Your task to perform on an android device: turn on improve location accuracy Image 0: 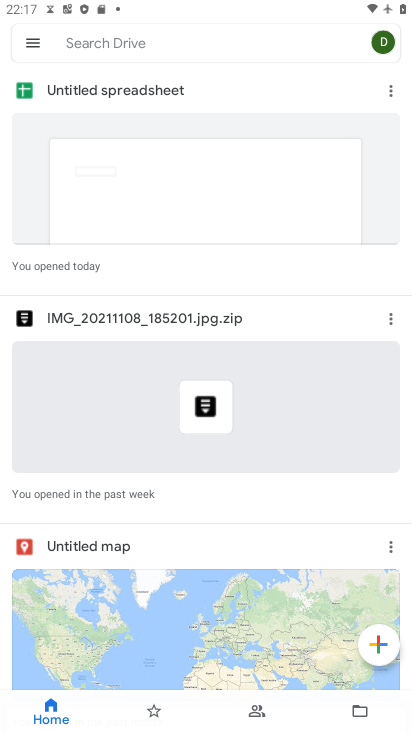
Step 0: press home button
Your task to perform on an android device: turn on improve location accuracy Image 1: 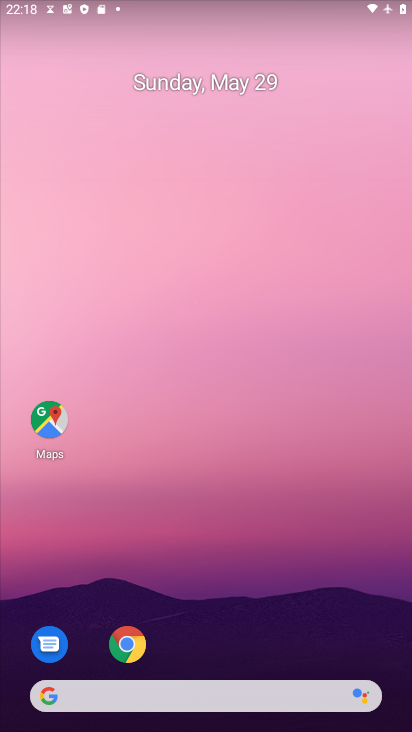
Step 1: drag from (280, 549) to (309, 10)
Your task to perform on an android device: turn on improve location accuracy Image 2: 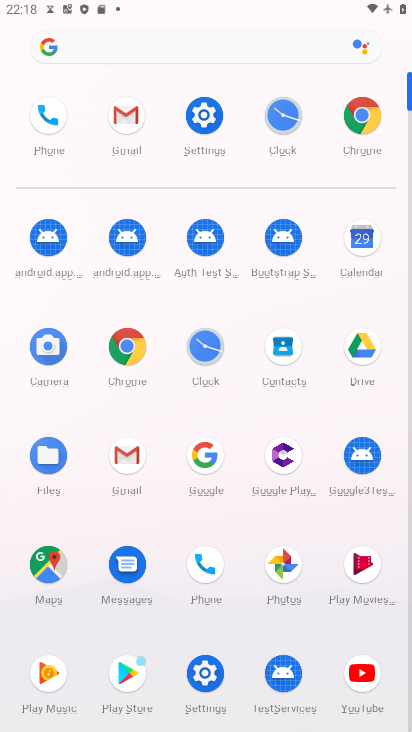
Step 2: click (208, 127)
Your task to perform on an android device: turn on improve location accuracy Image 3: 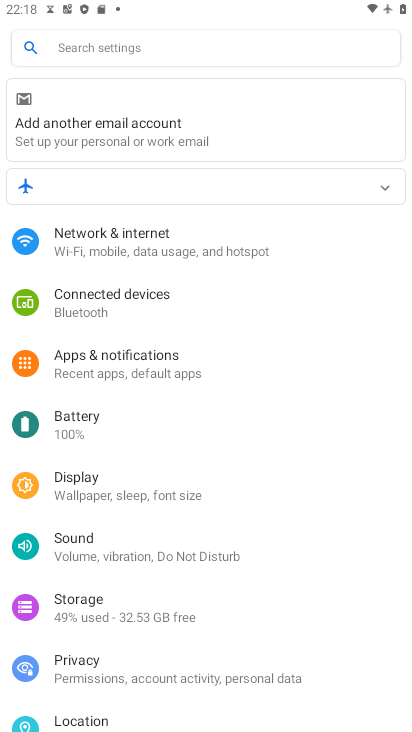
Step 3: drag from (148, 697) to (161, 500)
Your task to perform on an android device: turn on improve location accuracy Image 4: 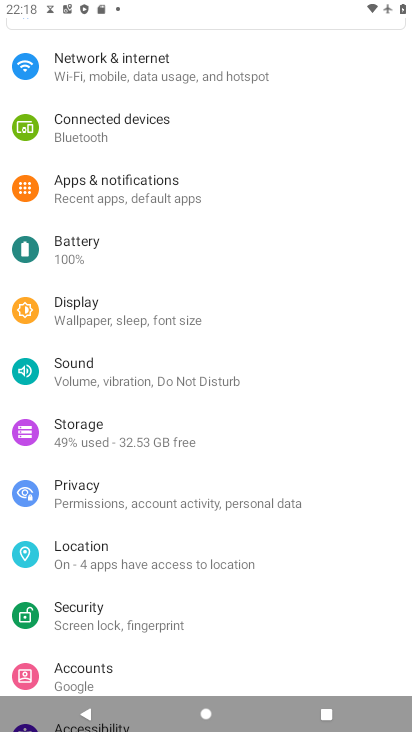
Step 4: click (124, 562)
Your task to perform on an android device: turn on improve location accuracy Image 5: 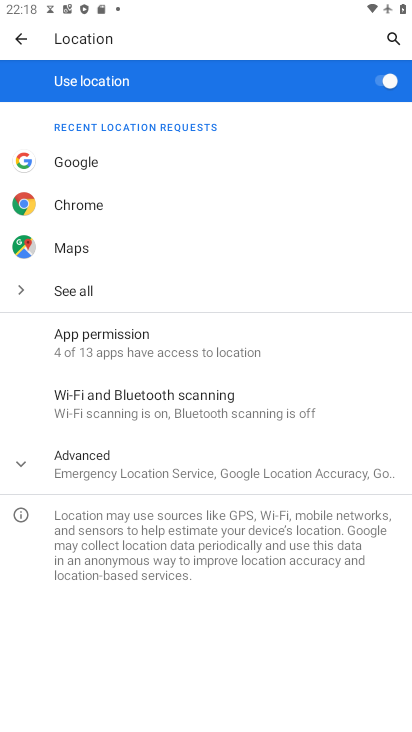
Step 5: click (116, 471)
Your task to perform on an android device: turn on improve location accuracy Image 6: 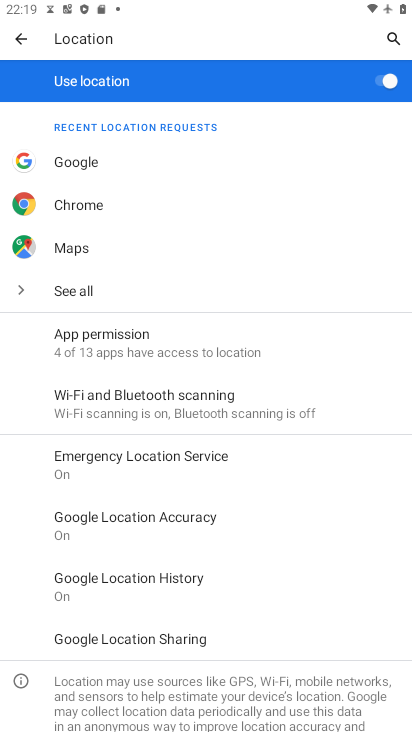
Step 6: task complete